Your task to perform on an android device: Open Google Chrome and open the bookmarks view Image 0: 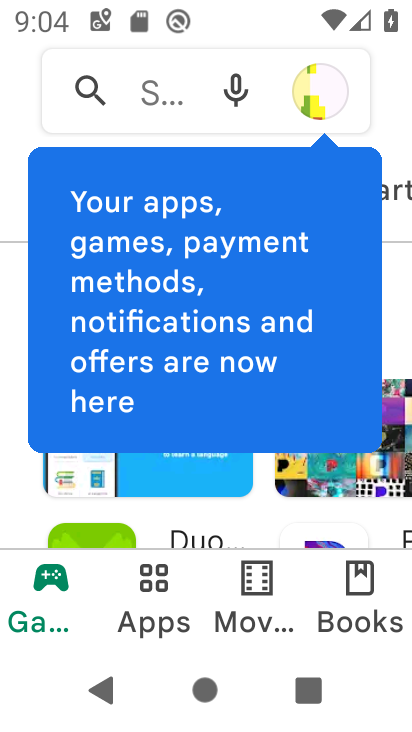
Step 0: press home button
Your task to perform on an android device: Open Google Chrome and open the bookmarks view Image 1: 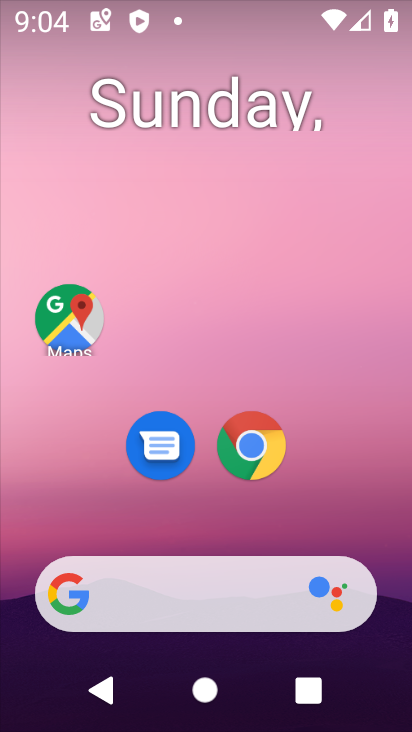
Step 1: click (254, 452)
Your task to perform on an android device: Open Google Chrome and open the bookmarks view Image 2: 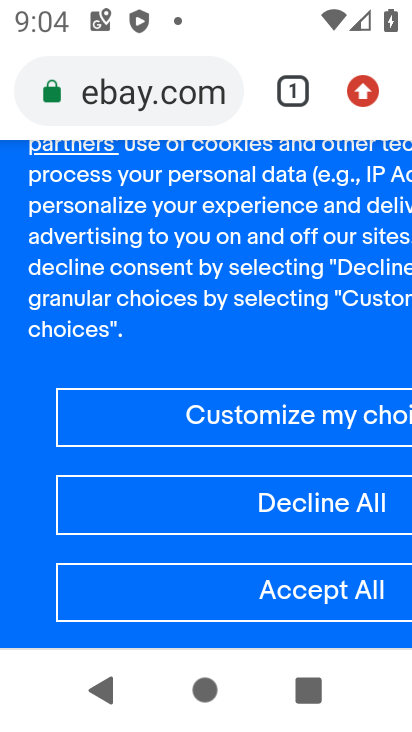
Step 2: click (361, 86)
Your task to perform on an android device: Open Google Chrome and open the bookmarks view Image 3: 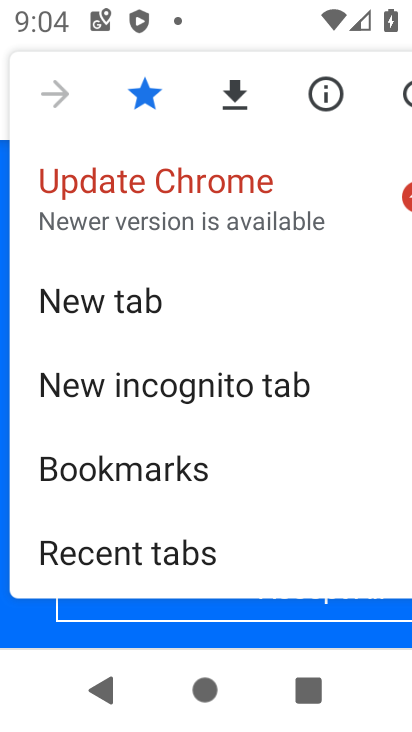
Step 3: drag from (296, 449) to (303, 234)
Your task to perform on an android device: Open Google Chrome and open the bookmarks view Image 4: 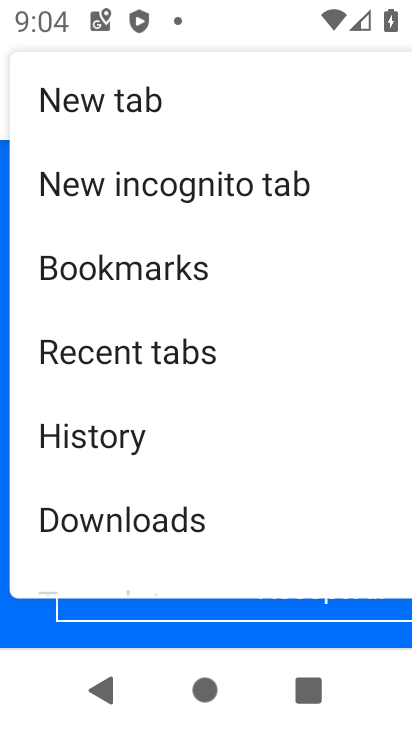
Step 4: click (87, 263)
Your task to perform on an android device: Open Google Chrome and open the bookmarks view Image 5: 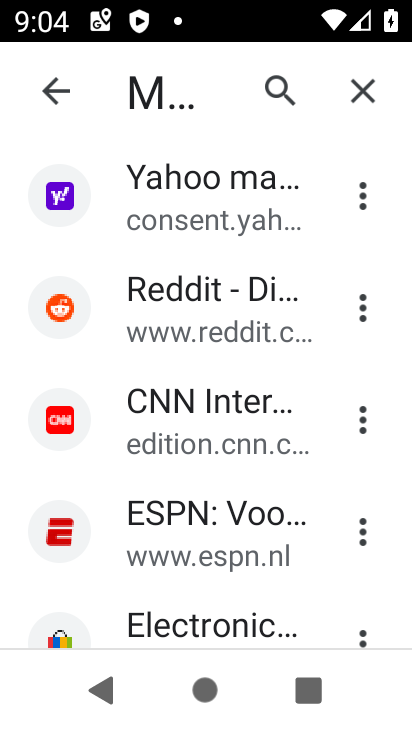
Step 5: task complete